Your task to perform on an android device: change the clock display to show seconds Image 0: 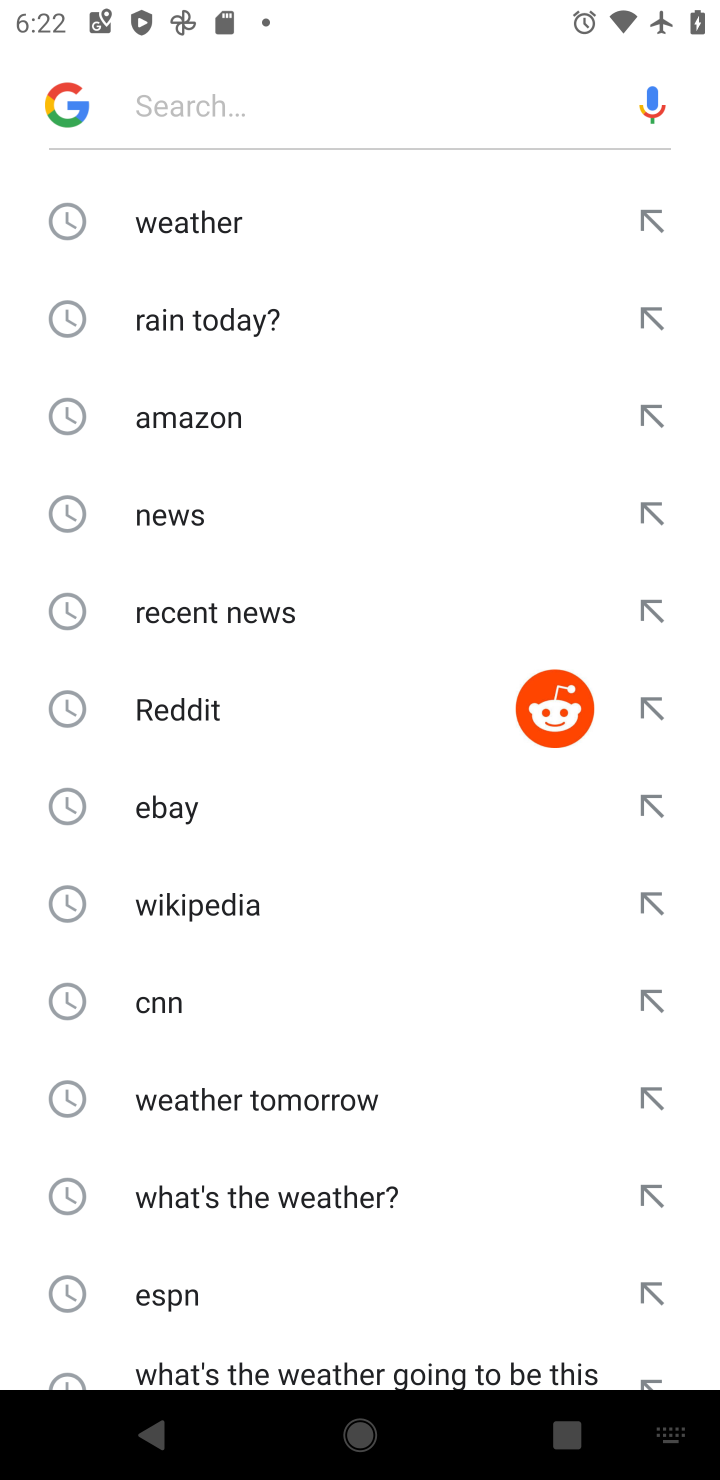
Step 0: press home button
Your task to perform on an android device: change the clock display to show seconds Image 1: 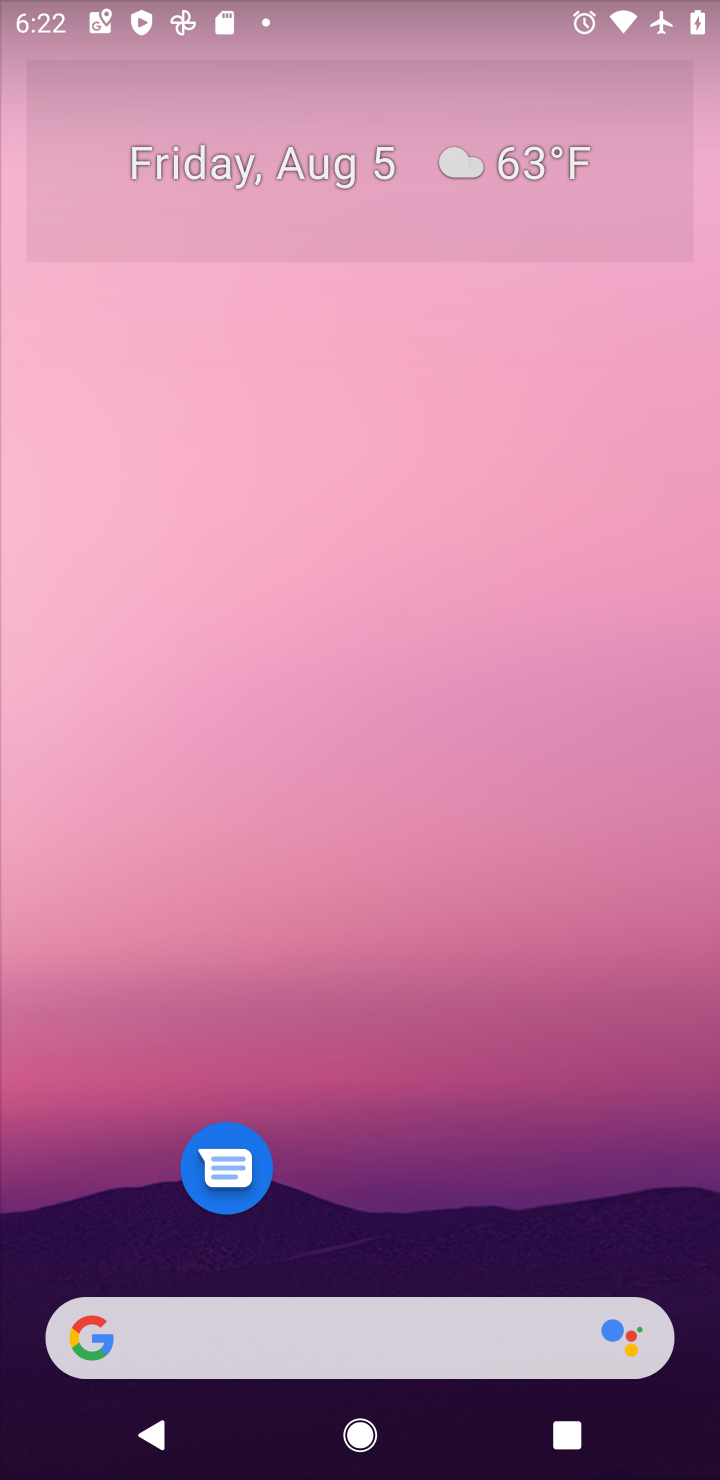
Step 1: drag from (396, 1159) to (428, 645)
Your task to perform on an android device: change the clock display to show seconds Image 2: 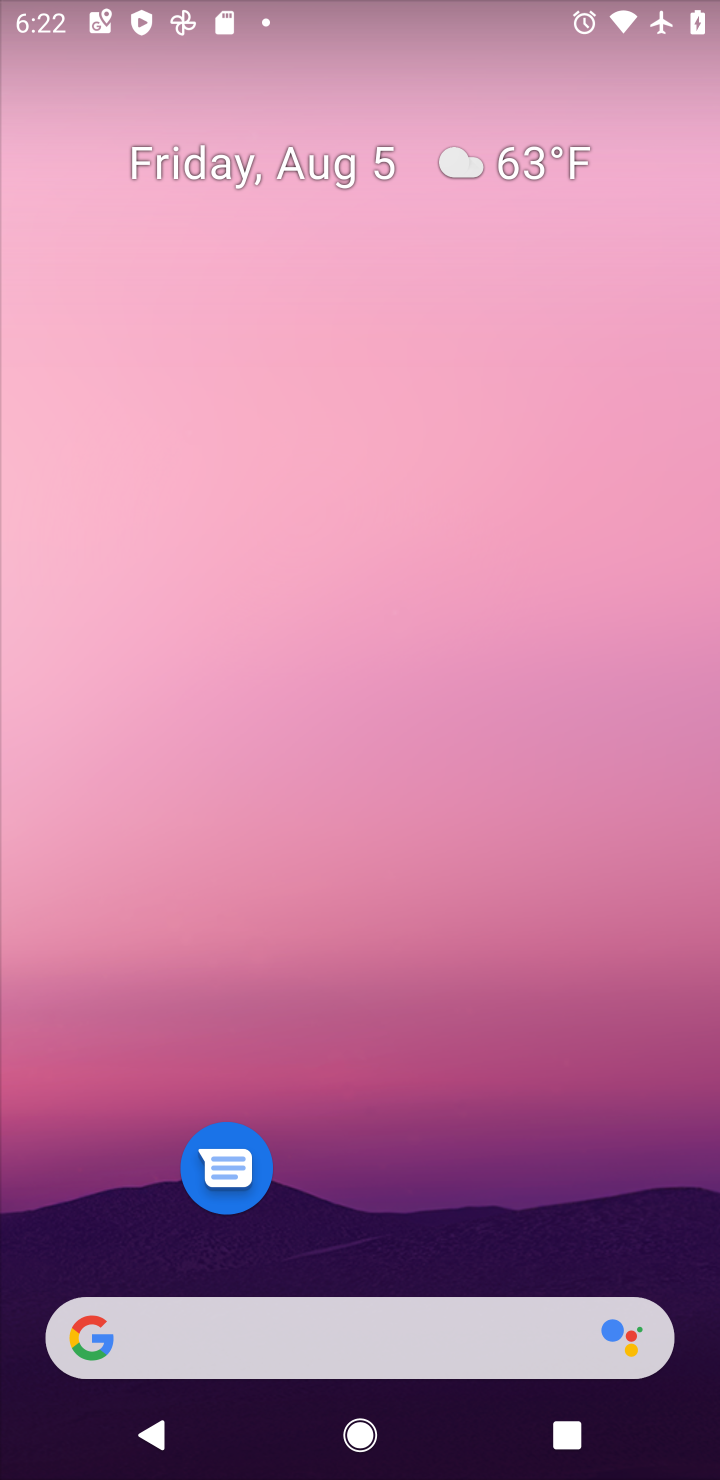
Step 2: drag from (446, 972) to (533, 411)
Your task to perform on an android device: change the clock display to show seconds Image 3: 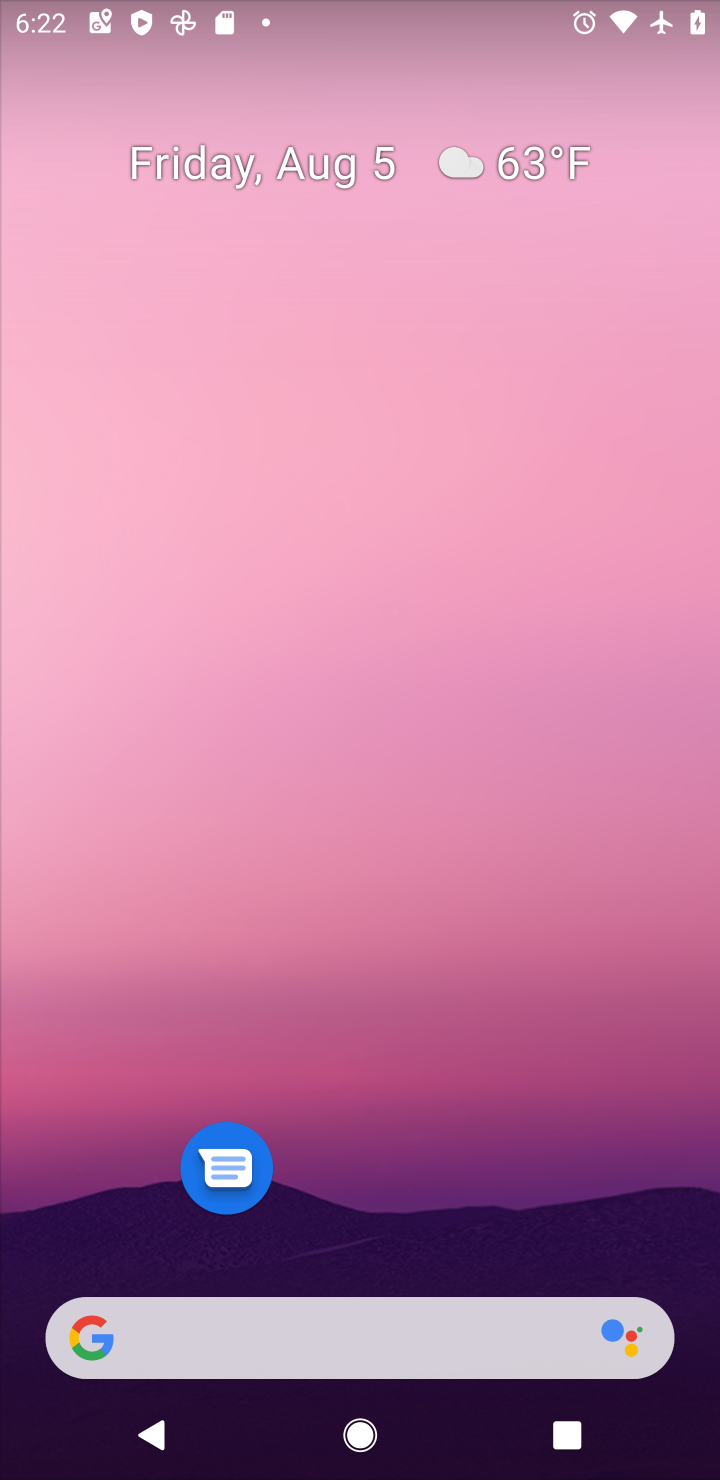
Step 3: drag from (396, 1153) to (419, 533)
Your task to perform on an android device: change the clock display to show seconds Image 4: 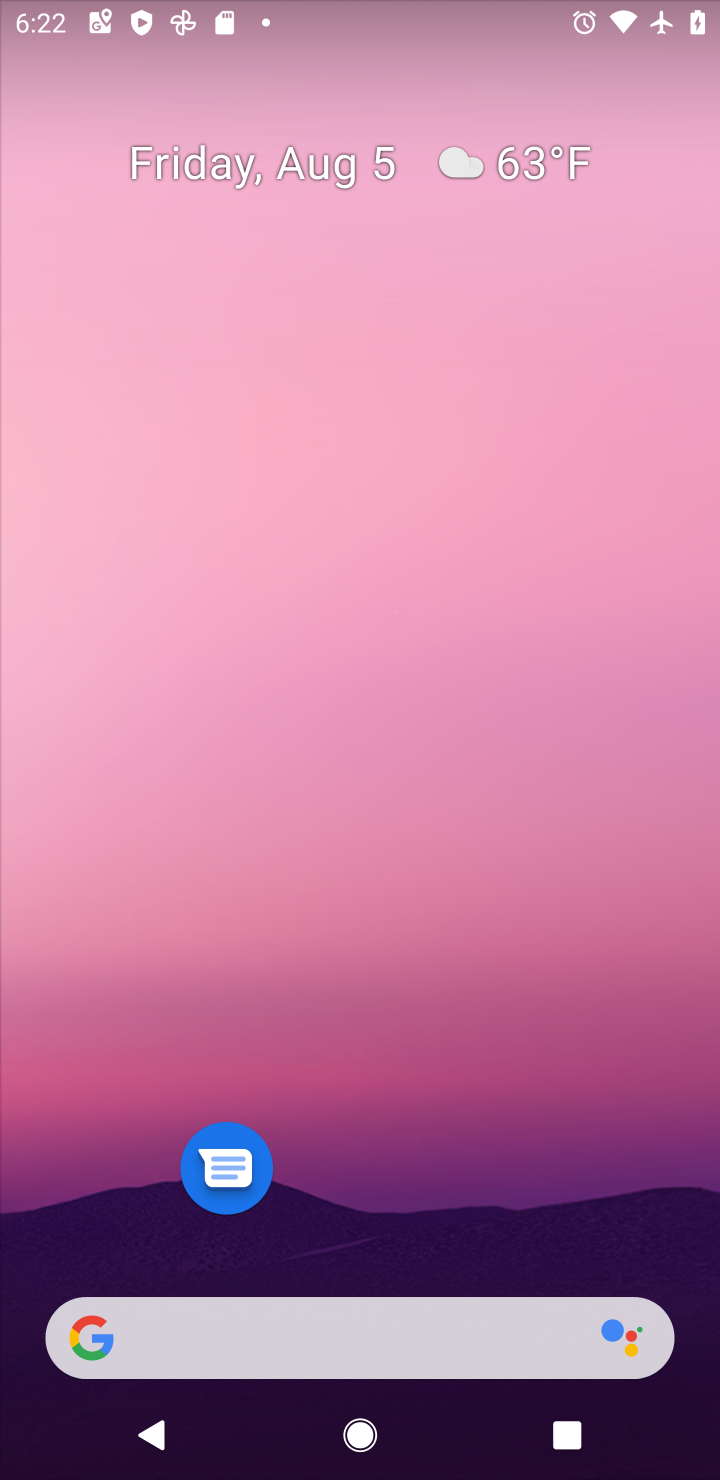
Step 4: drag from (361, 1255) to (567, 333)
Your task to perform on an android device: change the clock display to show seconds Image 5: 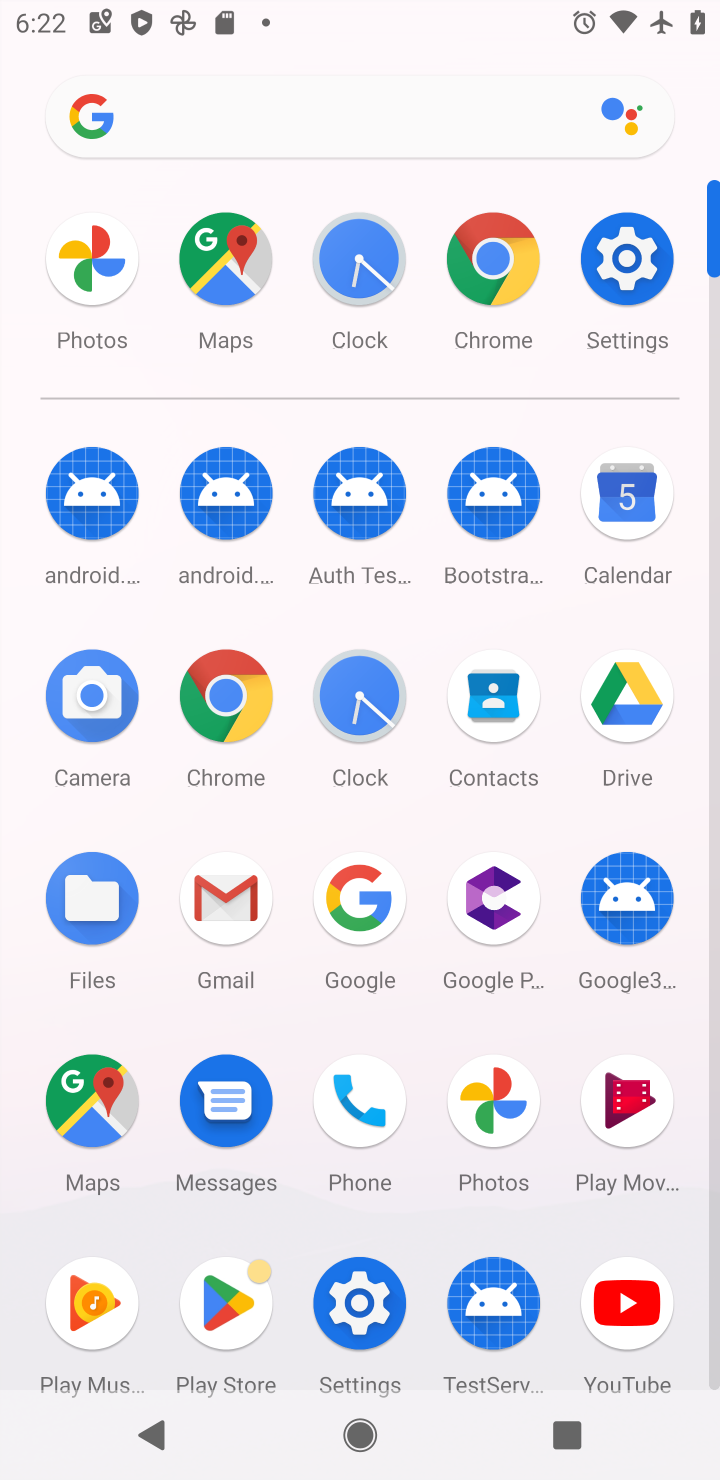
Step 5: click (337, 691)
Your task to perform on an android device: change the clock display to show seconds Image 6: 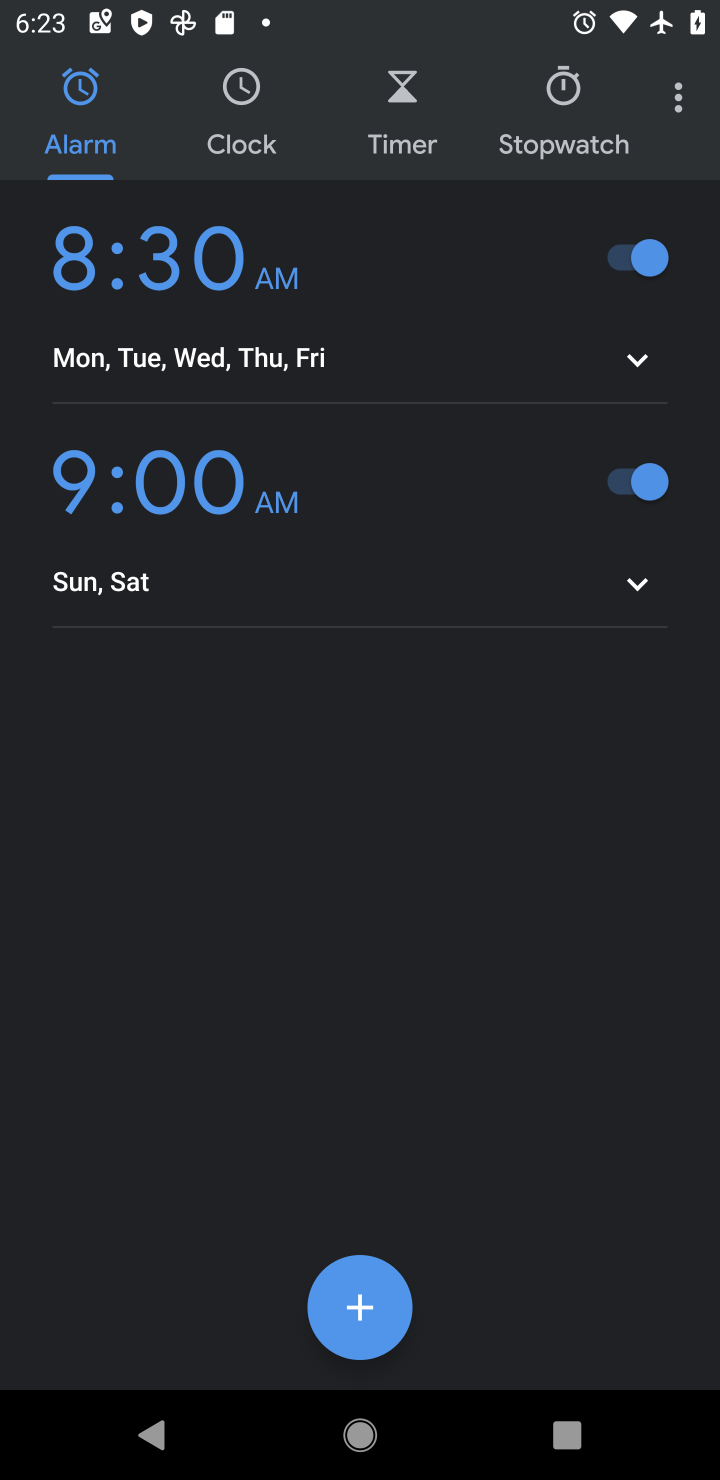
Step 6: click (675, 99)
Your task to perform on an android device: change the clock display to show seconds Image 7: 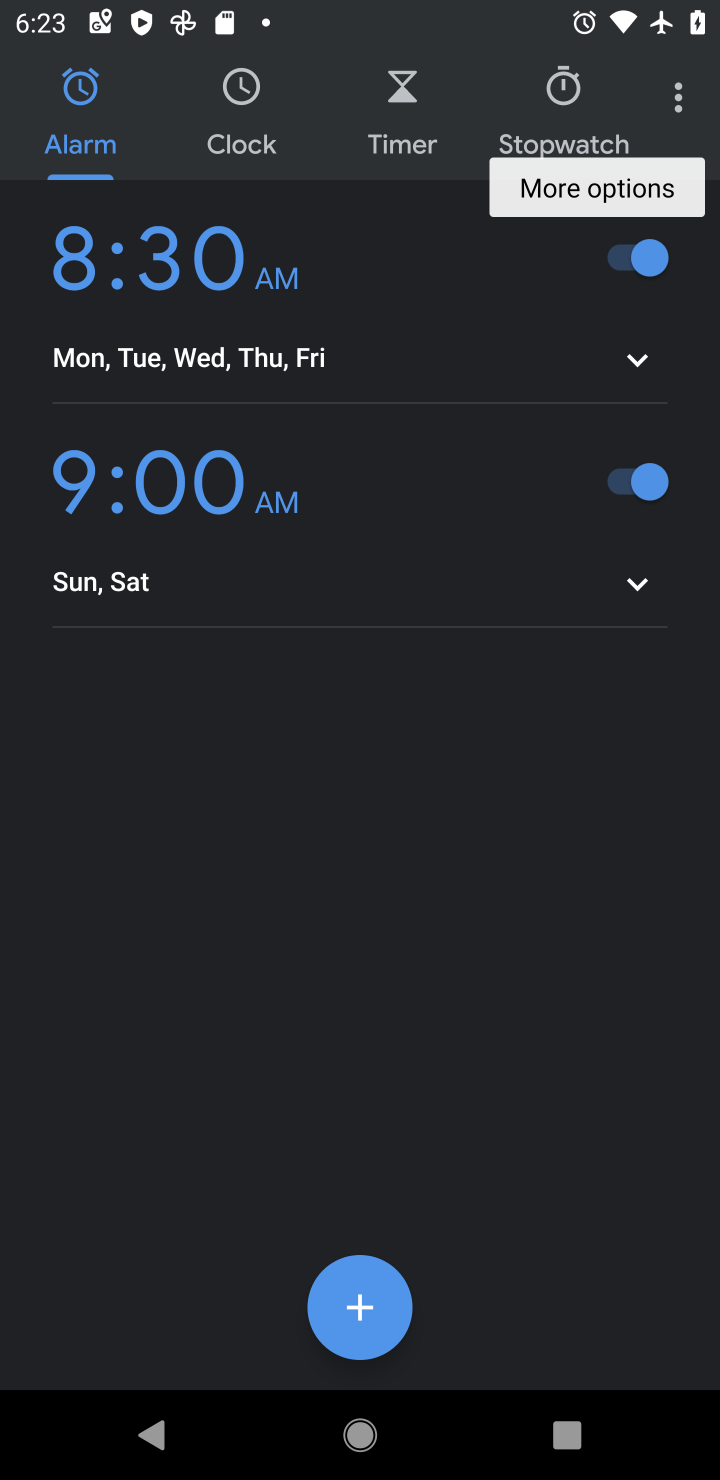
Step 7: click (678, 118)
Your task to perform on an android device: change the clock display to show seconds Image 8: 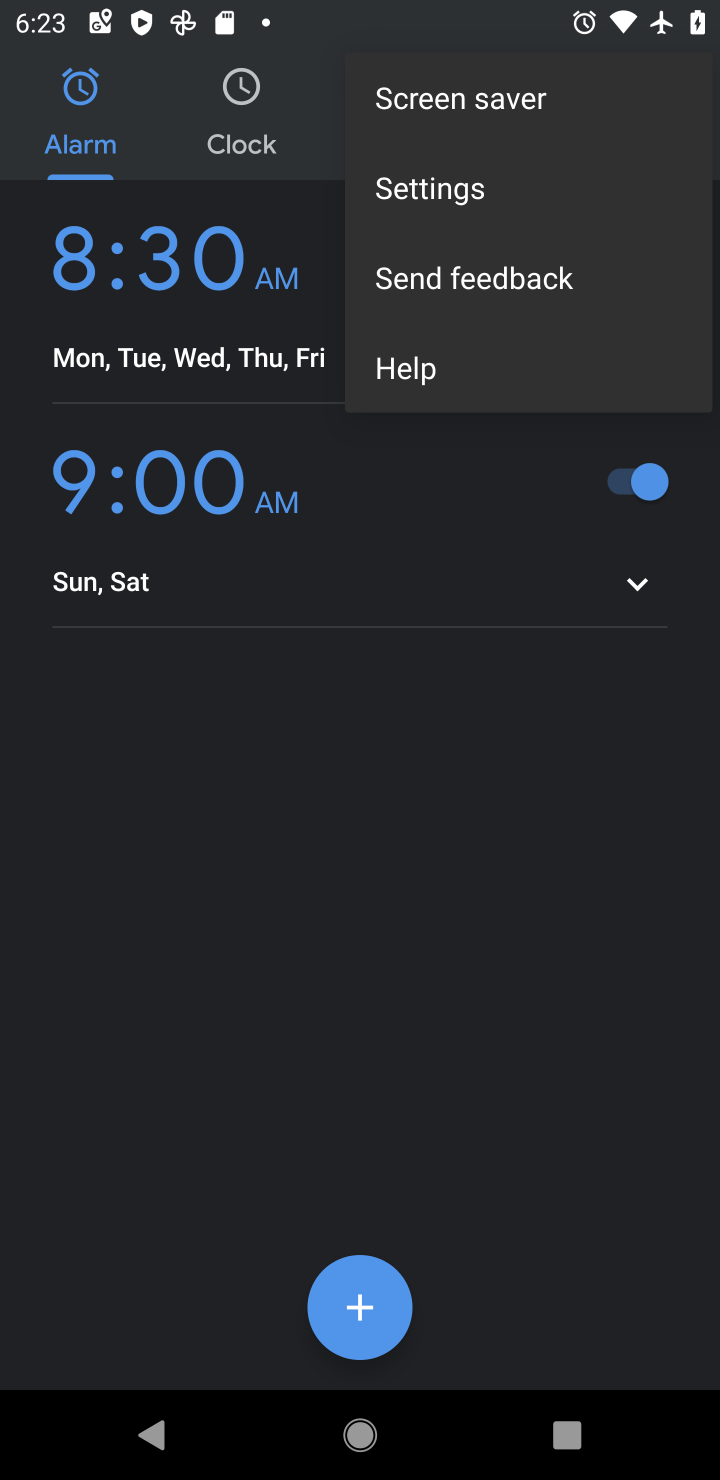
Step 8: click (414, 202)
Your task to perform on an android device: change the clock display to show seconds Image 9: 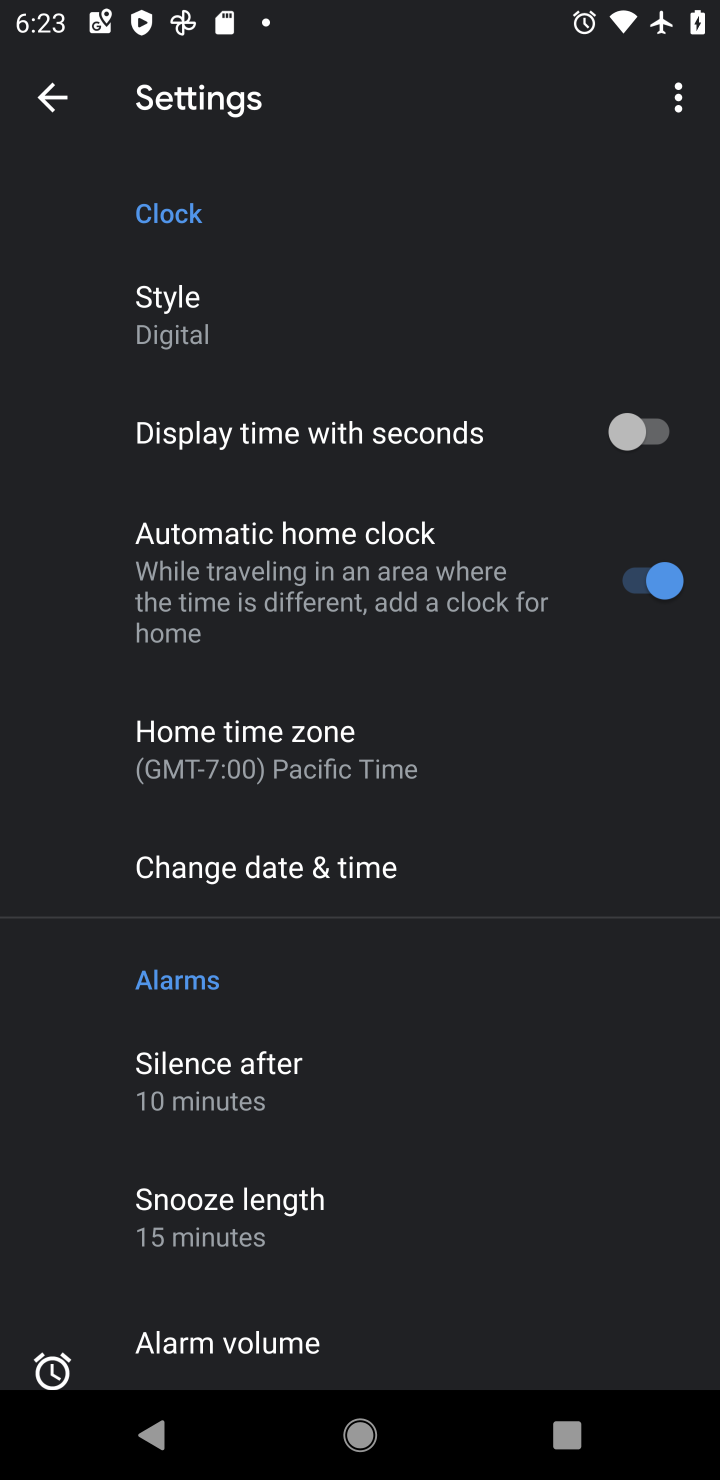
Step 9: click (626, 434)
Your task to perform on an android device: change the clock display to show seconds Image 10: 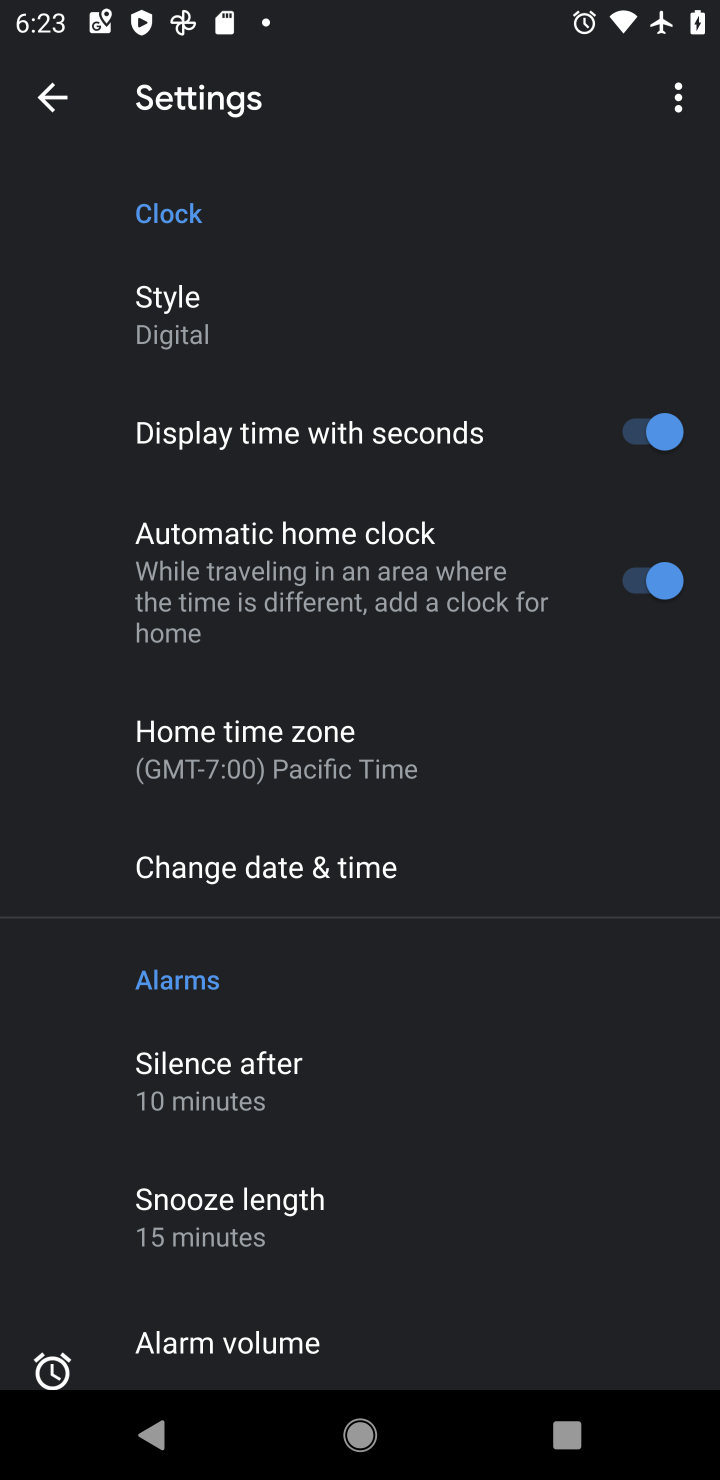
Step 10: task complete